Your task to perform on an android device: turn pop-ups on in chrome Image 0: 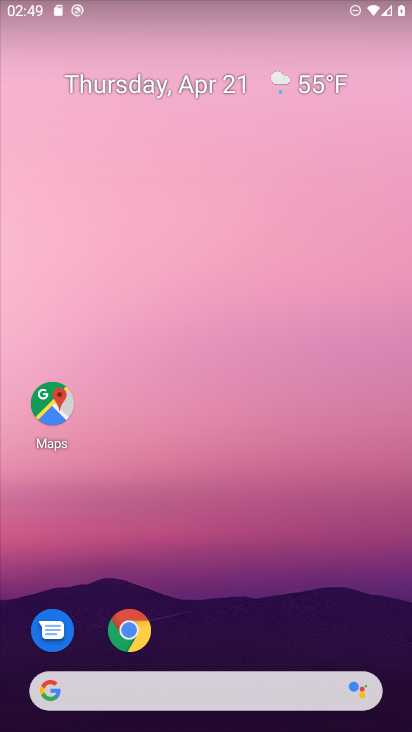
Step 0: click (142, 628)
Your task to perform on an android device: turn pop-ups on in chrome Image 1: 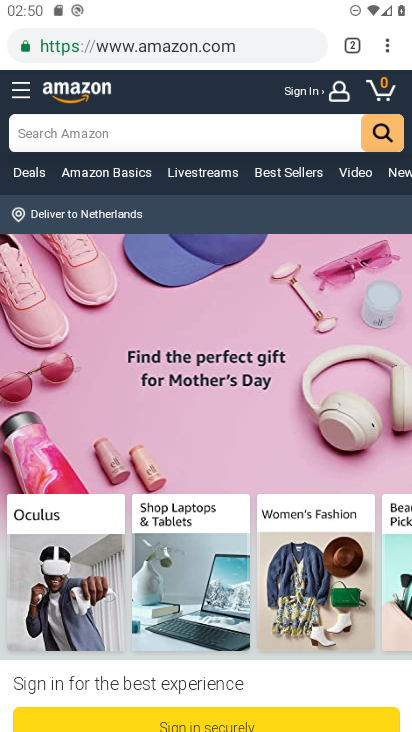
Step 1: click (390, 53)
Your task to perform on an android device: turn pop-ups on in chrome Image 2: 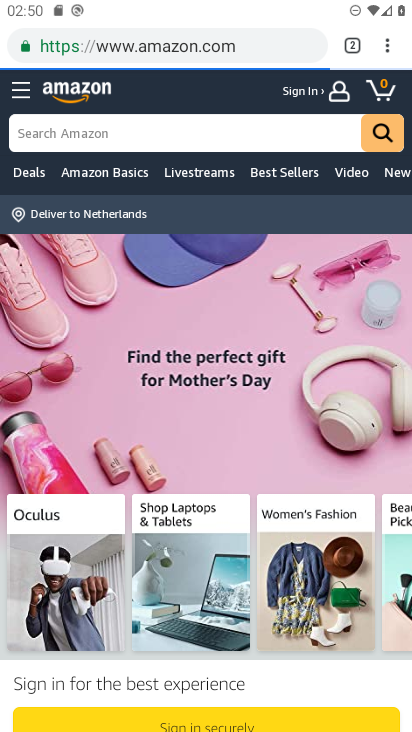
Step 2: click (385, 56)
Your task to perform on an android device: turn pop-ups on in chrome Image 3: 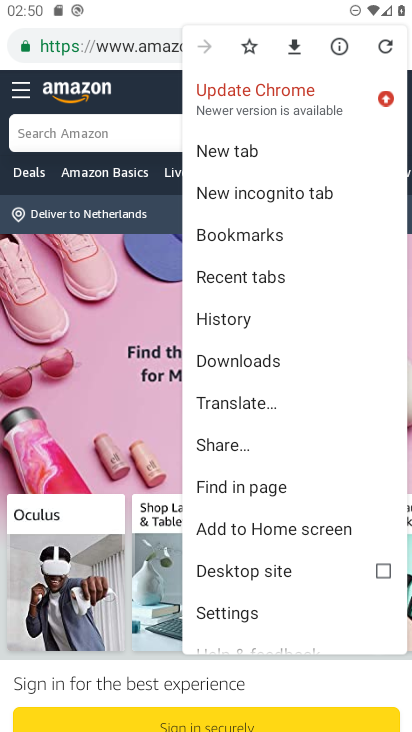
Step 3: click (302, 617)
Your task to perform on an android device: turn pop-ups on in chrome Image 4: 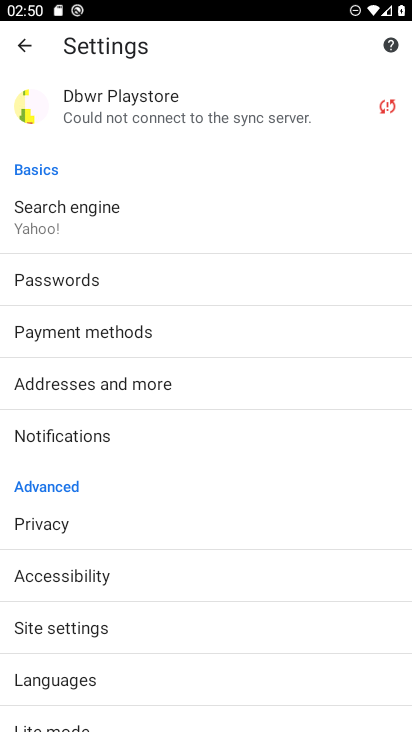
Step 4: drag from (302, 617) to (319, 423)
Your task to perform on an android device: turn pop-ups on in chrome Image 5: 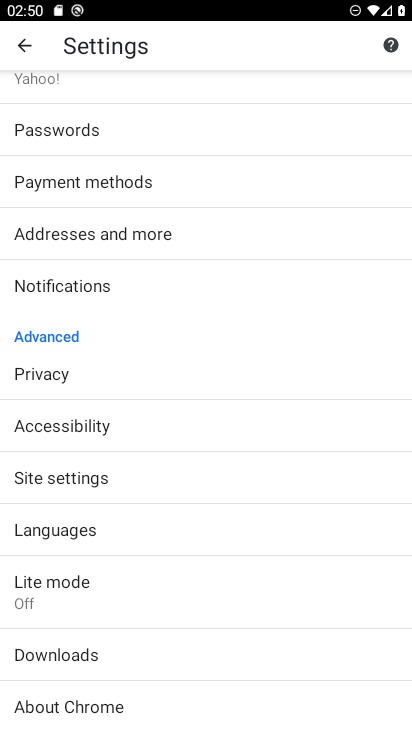
Step 5: click (244, 494)
Your task to perform on an android device: turn pop-ups on in chrome Image 6: 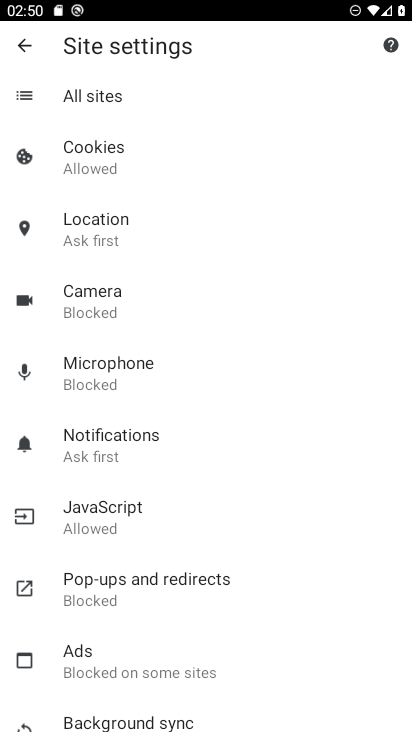
Step 6: click (223, 579)
Your task to perform on an android device: turn pop-ups on in chrome Image 7: 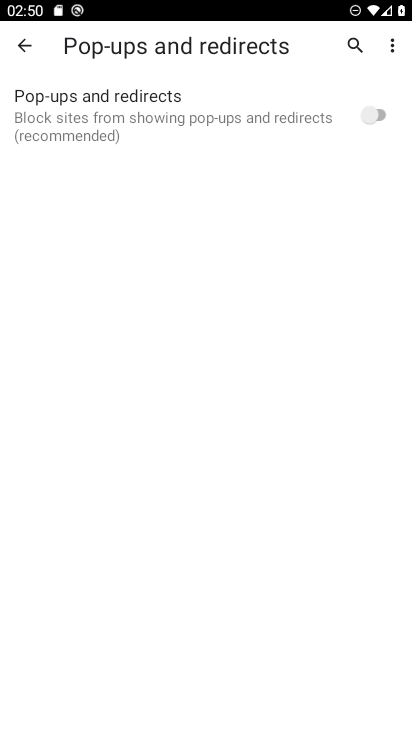
Step 7: click (339, 125)
Your task to perform on an android device: turn pop-ups on in chrome Image 8: 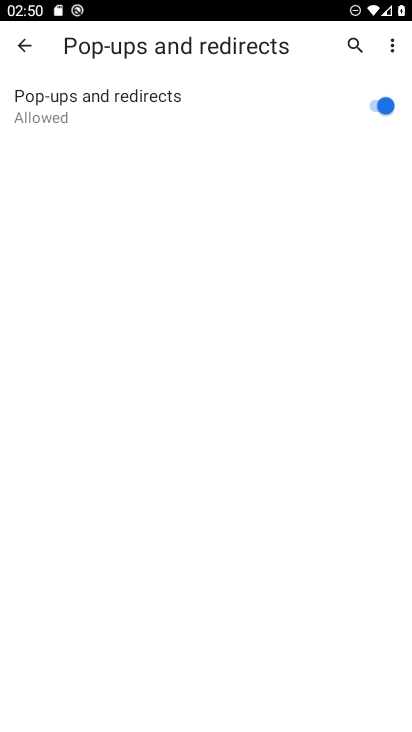
Step 8: task complete